Your task to perform on an android device: Search for razer kraken on newegg.com, select the first entry, add it to the cart, then select checkout. Image 0: 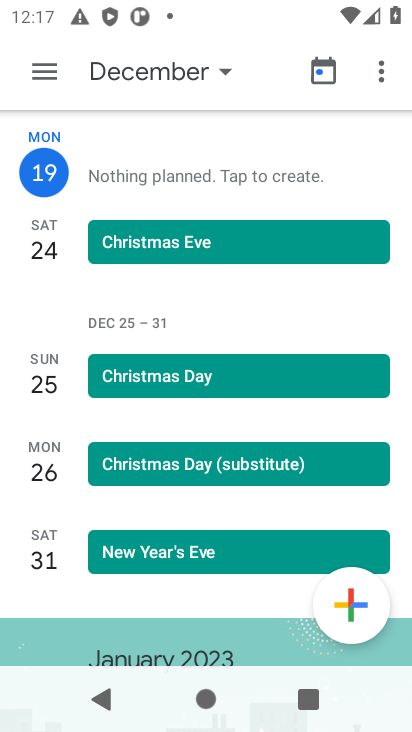
Step 0: press home button
Your task to perform on an android device: Search for razer kraken on newegg.com, select the first entry, add it to the cart, then select checkout. Image 1: 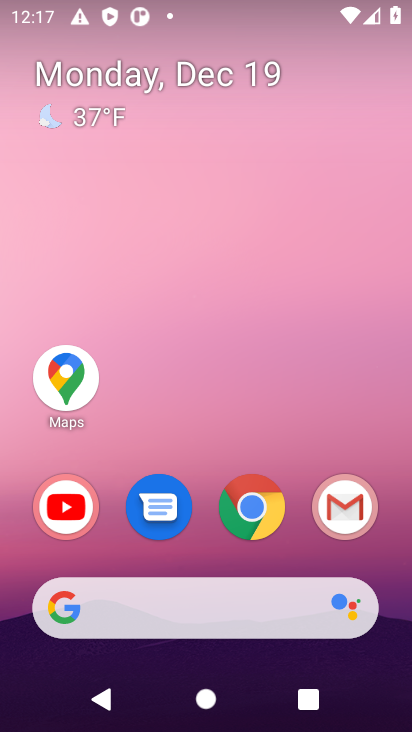
Step 1: click (248, 514)
Your task to perform on an android device: Search for razer kraken on newegg.com, select the first entry, add it to the cart, then select checkout. Image 2: 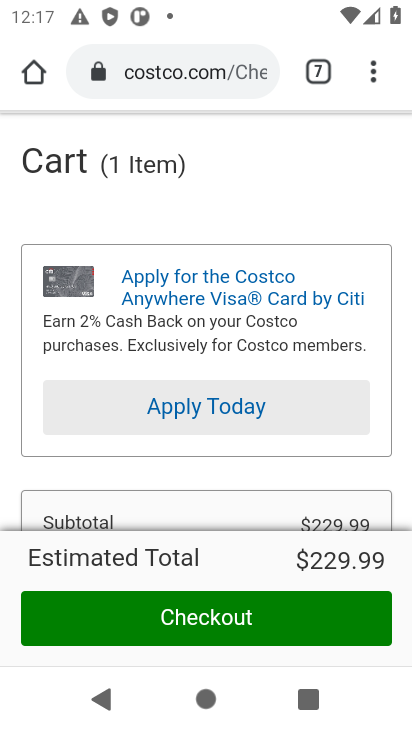
Step 2: click (161, 75)
Your task to perform on an android device: Search for razer kraken on newegg.com, select the first entry, add it to the cart, then select checkout. Image 3: 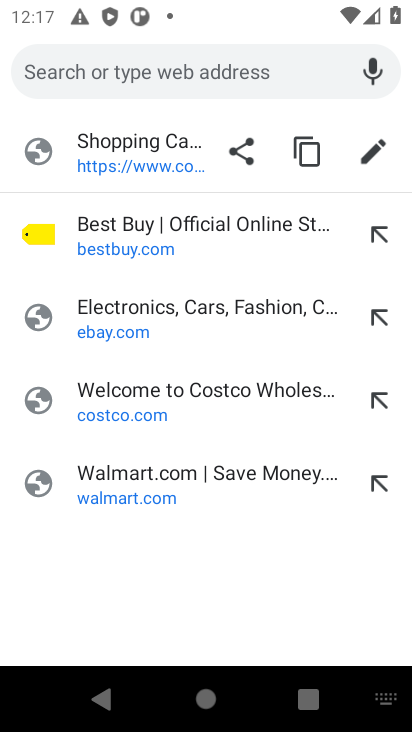
Step 3: type "newegg.com"
Your task to perform on an android device: Search for razer kraken on newegg.com, select the first entry, add it to the cart, then select checkout. Image 4: 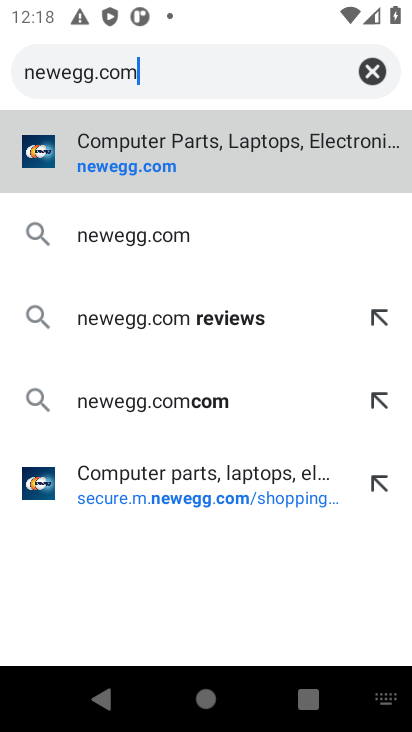
Step 4: click (126, 170)
Your task to perform on an android device: Search for razer kraken on newegg.com, select the first entry, add it to the cart, then select checkout. Image 5: 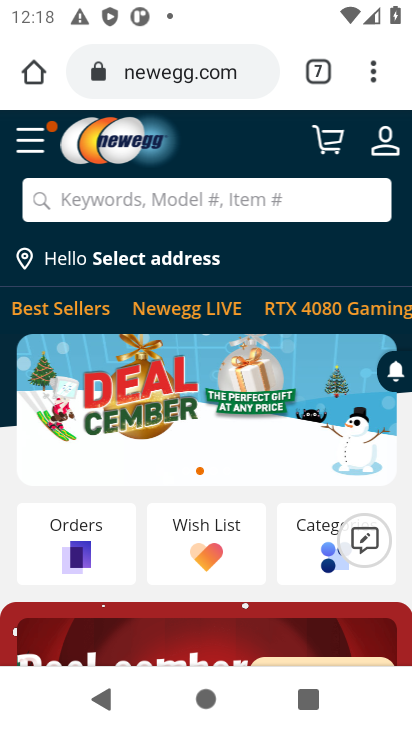
Step 5: click (104, 196)
Your task to perform on an android device: Search for razer kraken on newegg.com, select the first entry, add it to the cart, then select checkout. Image 6: 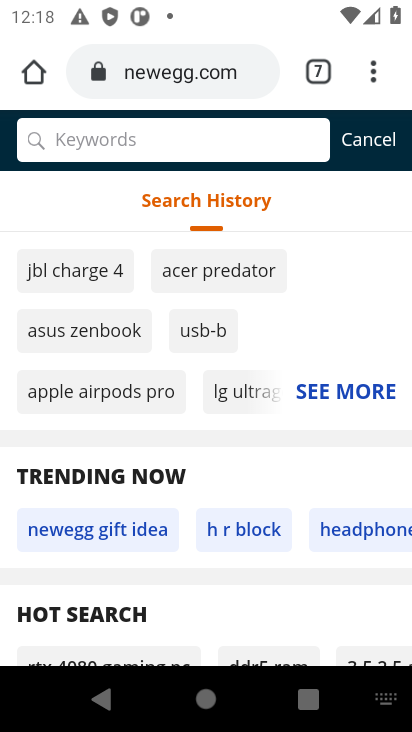
Step 6: type "razer kraken"
Your task to perform on an android device: Search for razer kraken on newegg.com, select the first entry, add it to the cart, then select checkout. Image 7: 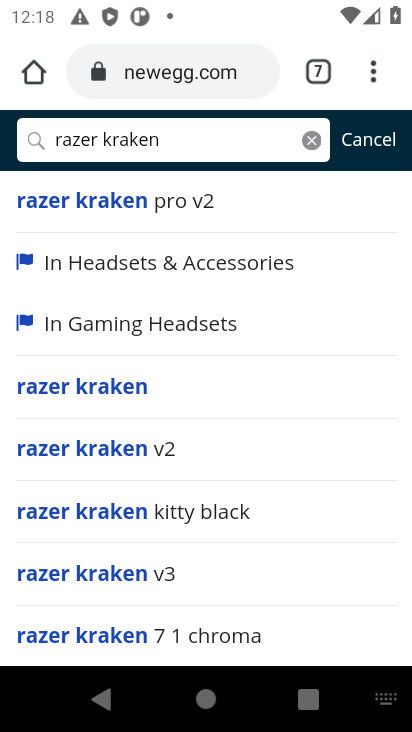
Step 7: click (83, 384)
Your task to perform on an android device: Search for razer kraken on newegg.com, select the first entry, add it to the cart, then select checkout. Image 8: 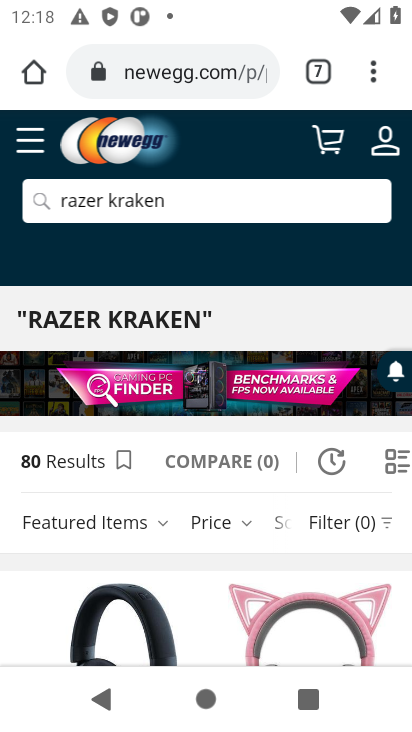
Step 8: drag from (108, 508) to (109, 162)
Your task to perform on an android device: Search for razer kraken on newegg.com, select the first entry, add it to the cart, then select checkout. Image 9: 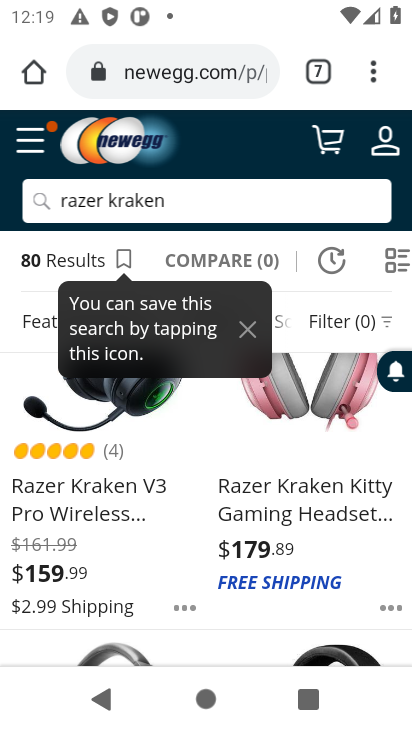
Step 9: click (60, 487)
Your task to perform on an android device: Search for razer kraken on newegg.com, select the first entry, add it to the cart, then select checkout. Image 10: 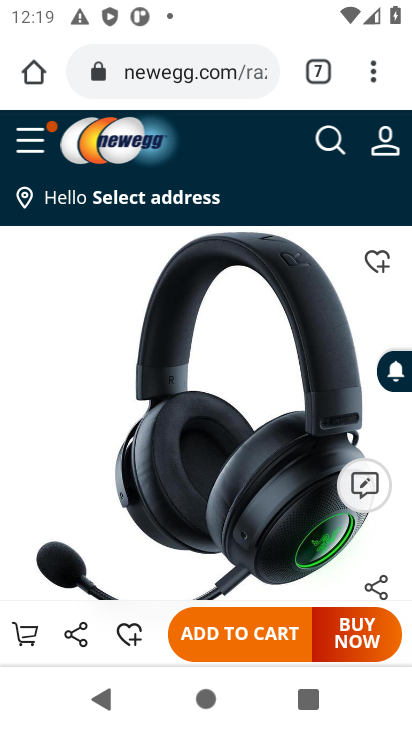
Step 10: click (234, 639)
Your task to perform on an android device: Search for razer kraken on newegg.com, select the first entry, add it to the cart, then select checkout. Image 11: 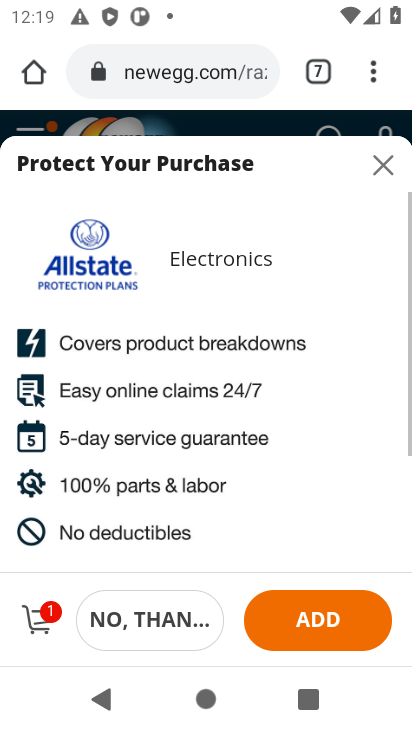
Step 11: click (30, 614)
Your task to perform on an android device: Search for razer kraken on newegg.com, select the first entry, add it to the cart, then select checkout. Image 12: 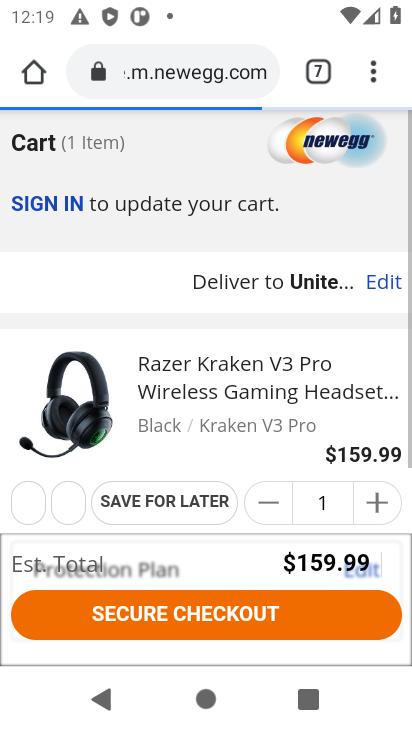
Step 12: click (189, 623)
Your task to perform on an android device: Search for razer kraken on newegg.com, select the first entry, add it to the cart, then select checkout. Image 13: 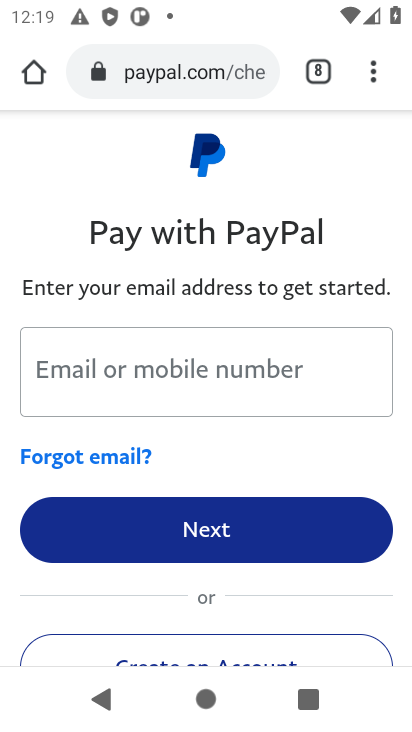
Step 13: task complete